Your task to perform on an android device: Go to notification settings Image 0: 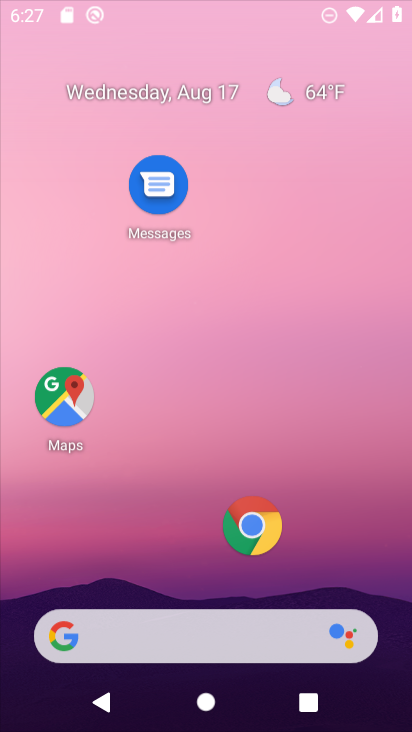
Step 0: click (186, 149)
Your task to perform on an android device: Go to notification settings Image 1: 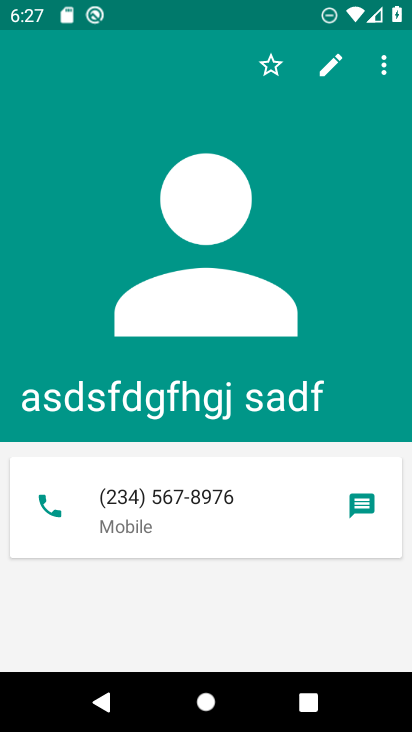
Step 1: press home button
Your task to perform on an android device: Go to notification settings Image 2: 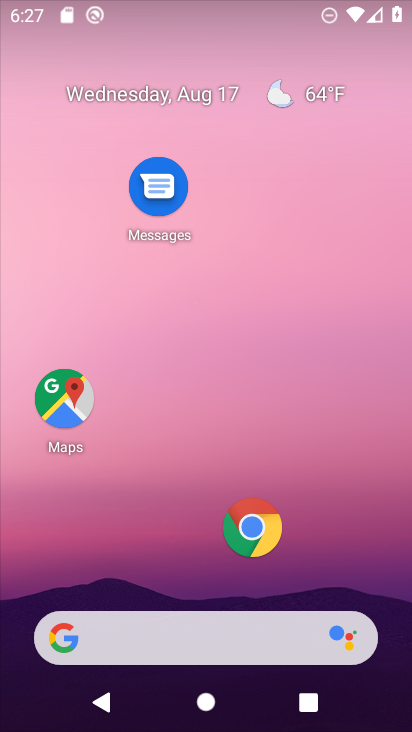
Step 2: drag from (180, 623) to (108, 122)
Your task to perform on an android device: Go to notification settings Image 3: 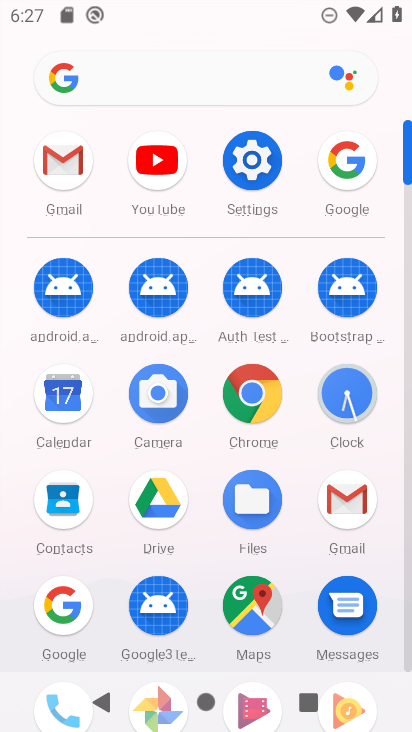
Step 3: click (268, 163)
Your task to perform on an android device: Go to notification settings Image 4: 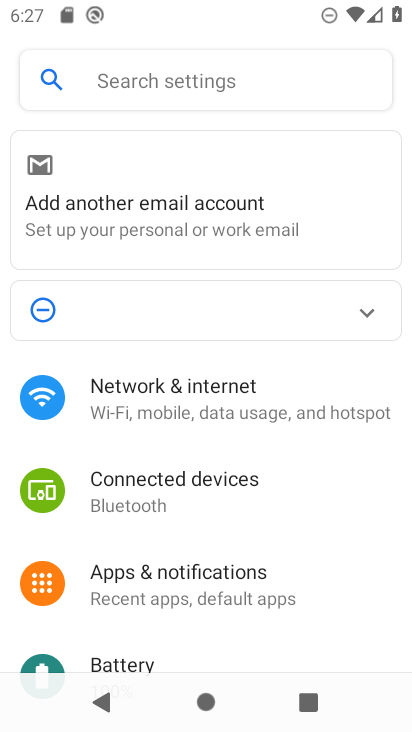
Step 4: click (121, 592)
Your task to perform on an android device: Go to notification settings Image 5: 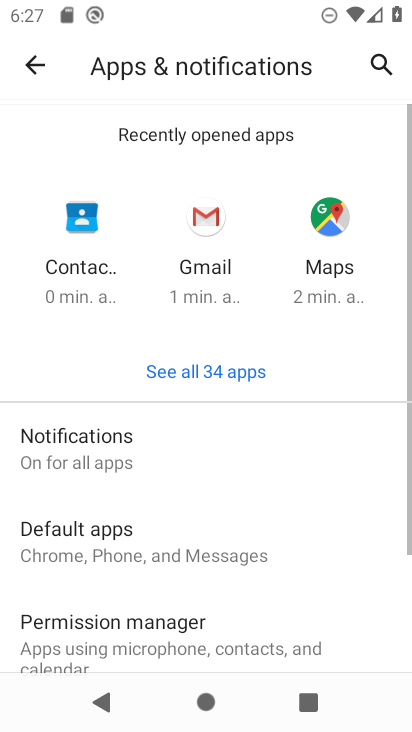
Step 5: drag from (142, 635) to (134, 289)
Your task to perform on an android device: Go to notification settings Image 6: 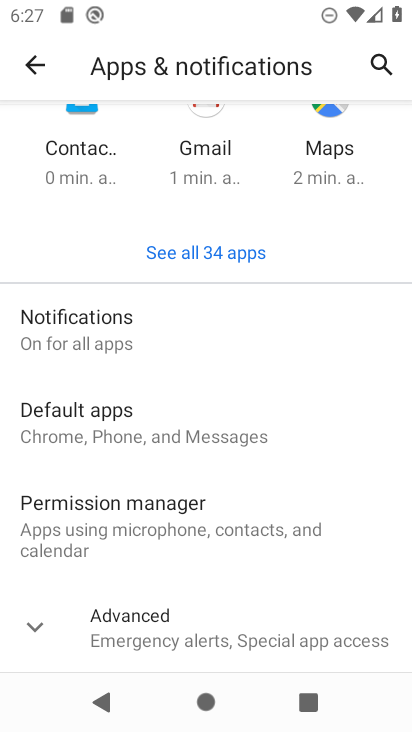
Step 6: click (119, 639)
Your task to perform on an android device: Go to notification settings Image 7: 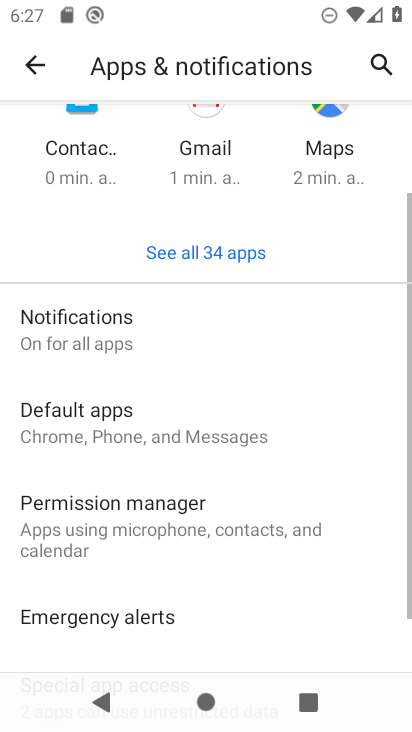
Step 7: task complete